Your task to perform on an android device: open chrome and create a bookmark for the current page Image 0: 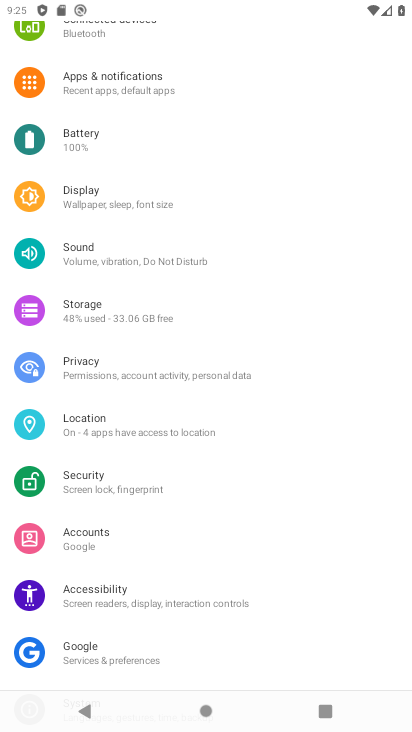
Step 0: press home button
Your task to perform on an android device: open chrome and create a bookmark for the current page Image 1: 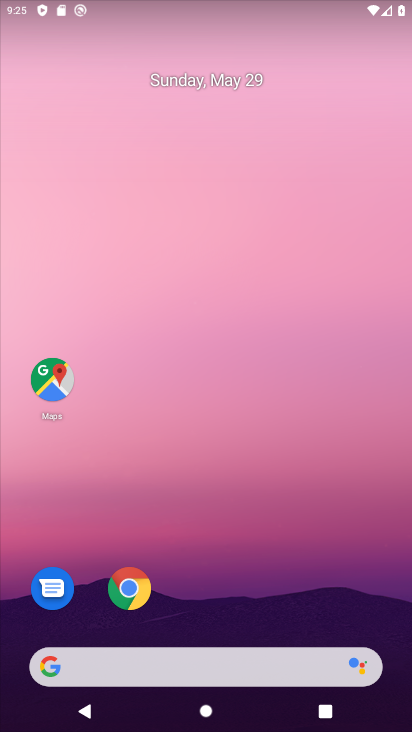
Step 1: click (108, 594)
Your task to perform on an android device: open chrome and create a bookmark for the current page Image 2: 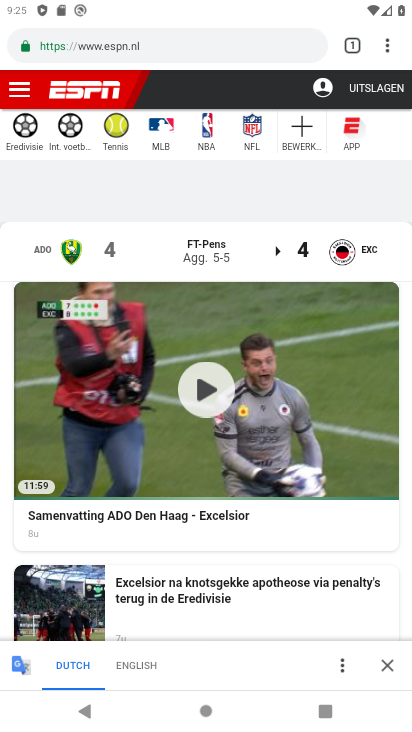
Step 2: click (385, 50)
Your task to perform on an android device: open chrome and create a bookmark for the current page Image 3: 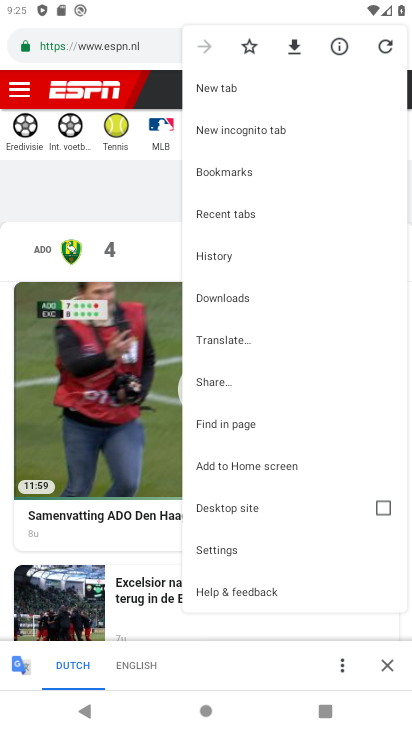
Step 3: click (239, 49)
Your task to perform on an android device: open chrome and create a bookmark for the current page Image 4: 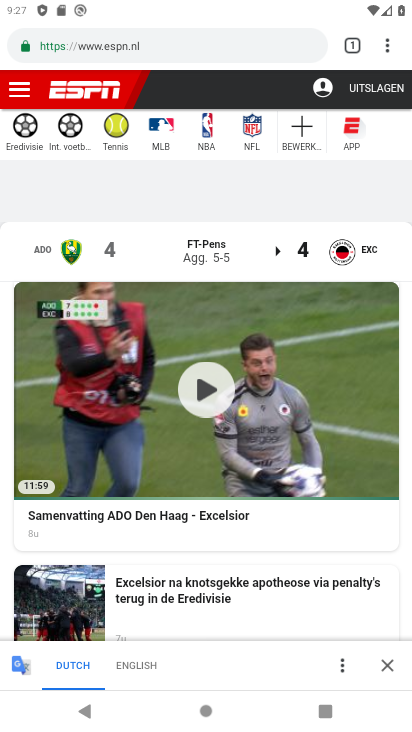
Step 4: task complete